Your task to perform on an android device: Show me popular games on the Play Store Image 0: 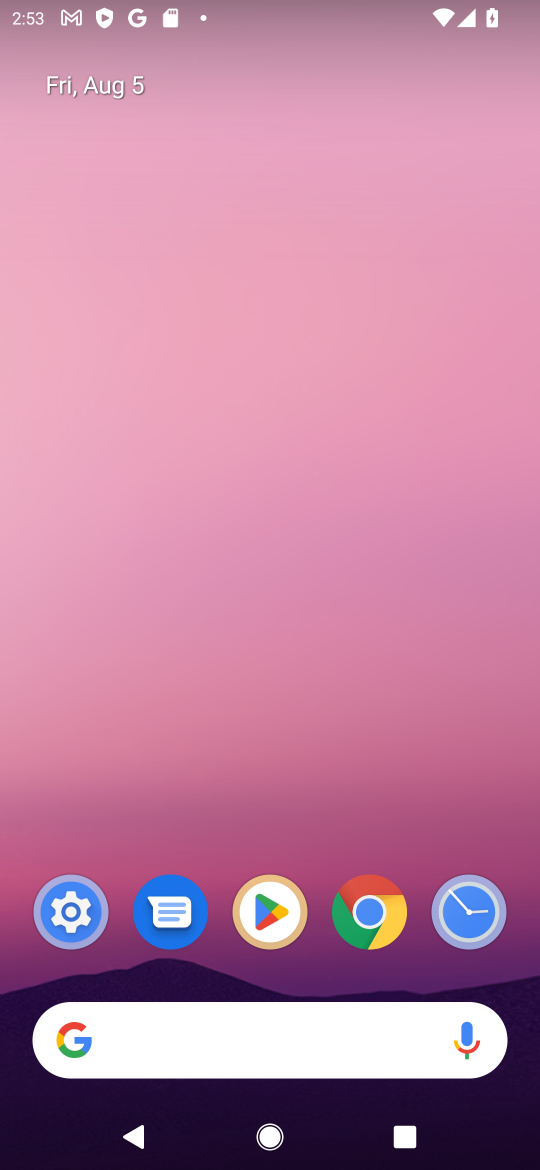
Step 0: click (280, 902)
Your task to perform on an android device: Show me popular games on the Play Store Image 1: 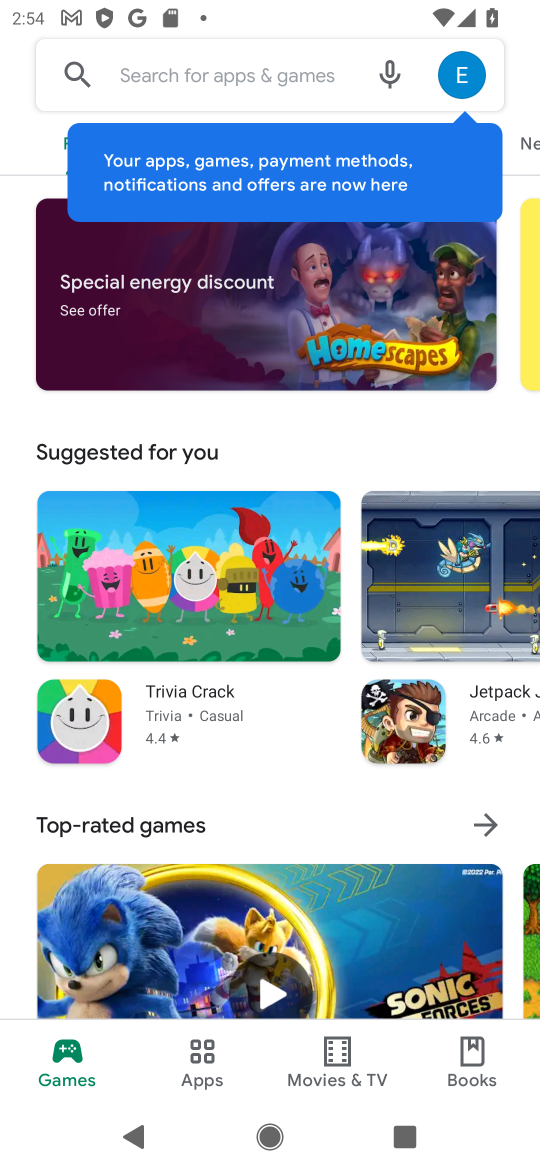
Step 1: click (47, 141)
Your task to perform on an android device: Show me popular games on the Play Store Image 2: 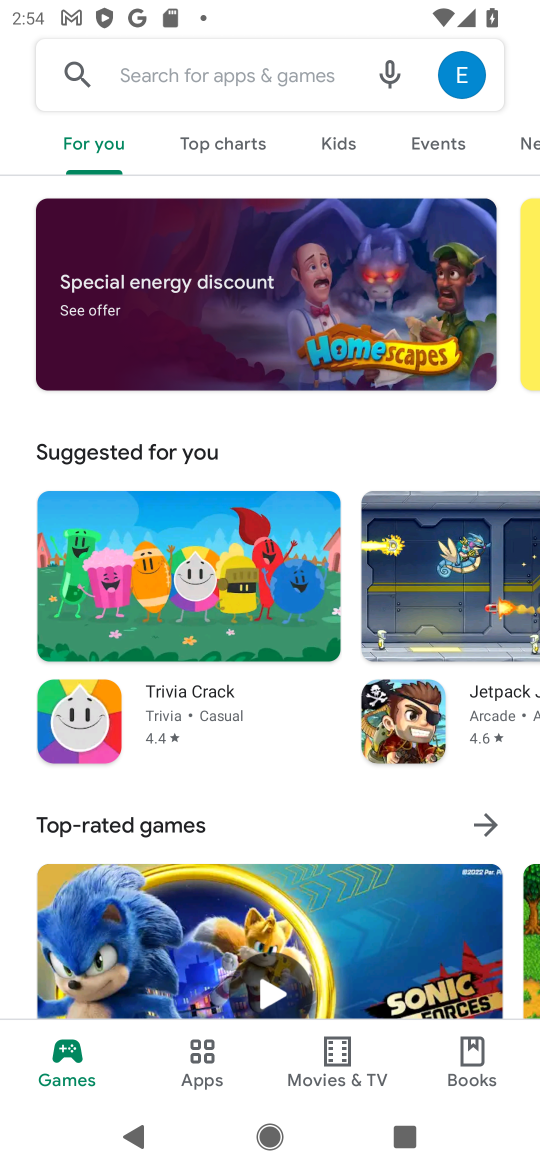
Step 2: click (241, 146)
Your task to perform on an android device: Show me popular games on the Play Store Image 3: 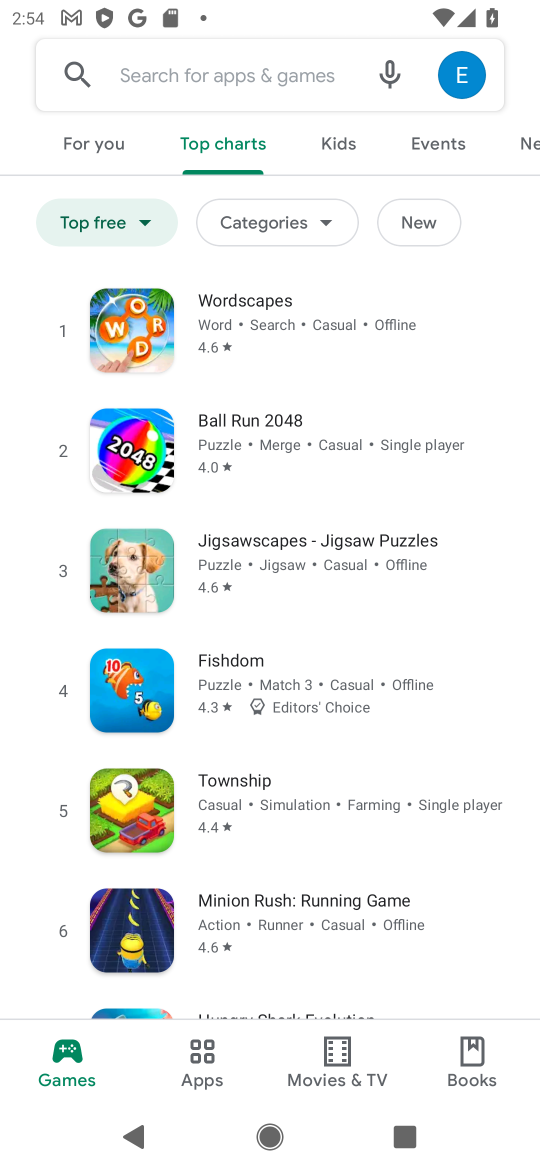
Step 3: task complete